Your task to perform on an android device: turn on location history Image 0: 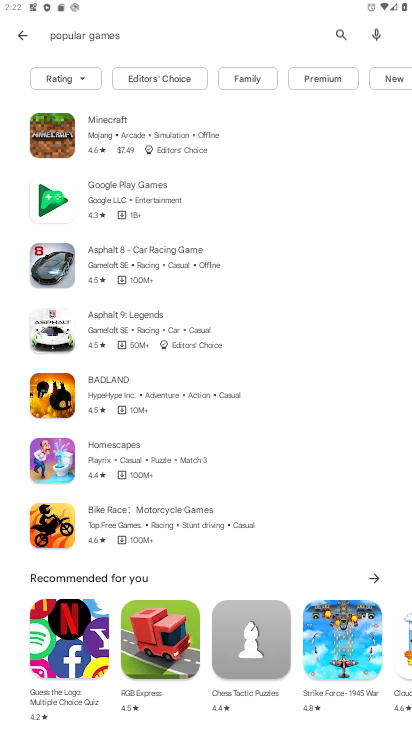
Step 0: press home button
Your task to perform on an android device: turn on location history Image 1: 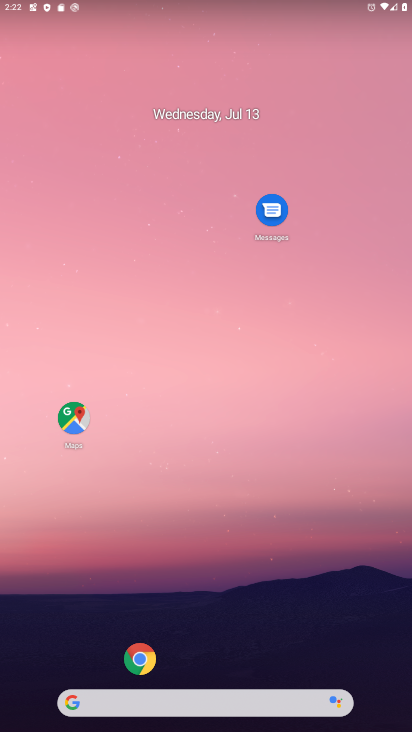
Step 1: drag from (17, 664) to (113, 21)
Your task to perform on an android device: turn on location history Image 2: 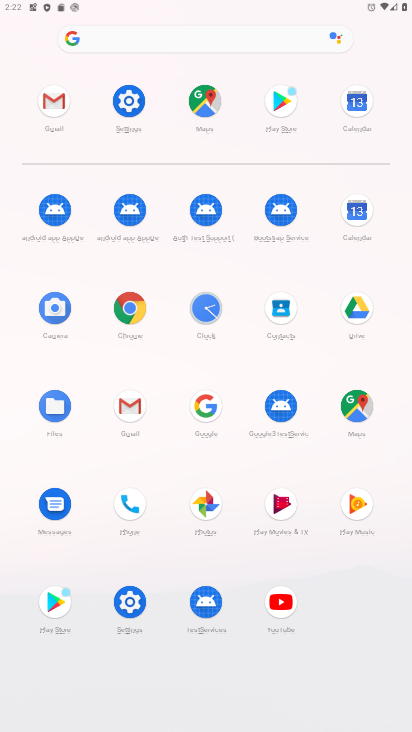
Step 2: click (134, 603)
Your task to perform on an android device: turn on location history Image 3: 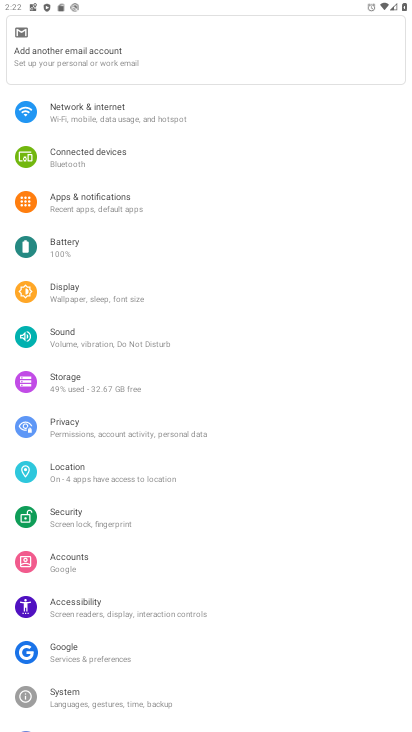
Step 3: click (92, 464)
Your task to perform on an android device: turn on location history Image 4: 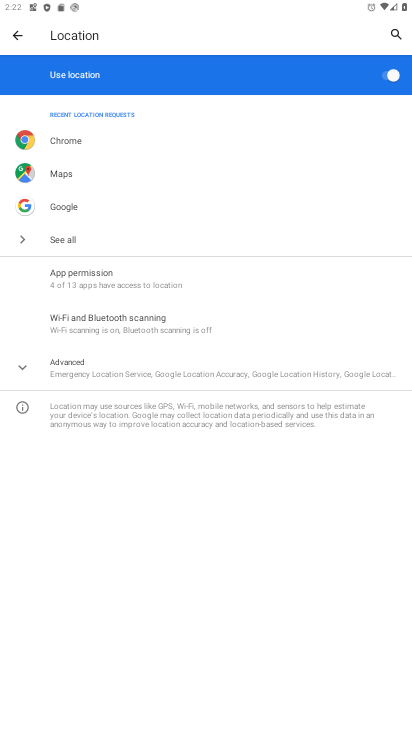
Step 4: click (113, 361)
Your task to perform on an android device: turn on location history Image 5: 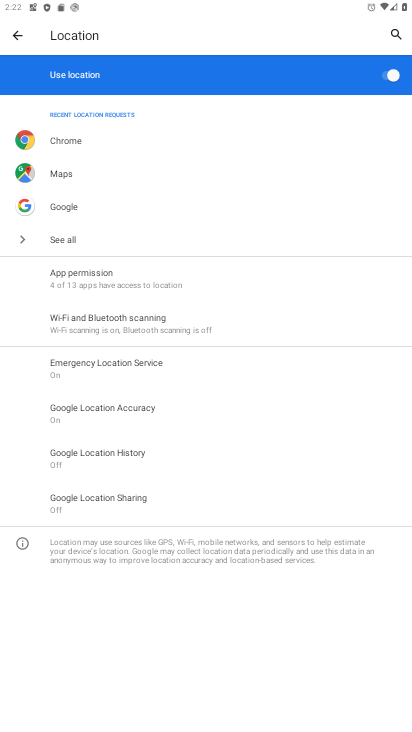
Step 5: click (106, 458)
Your task to perform on an android device: turn on location history Image 6: 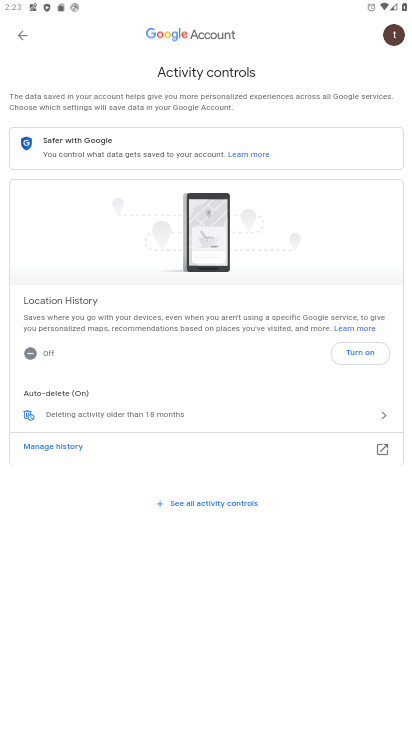
Step 6: click (361, 350)
Your task to perform on an android device: turn on location history Image 7: 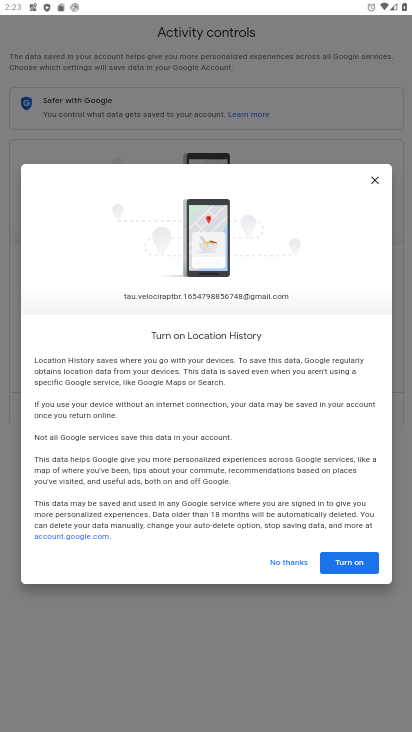
Step 7: click (352, 563)
Your task to perform on an android device: turn on location history Image 8: 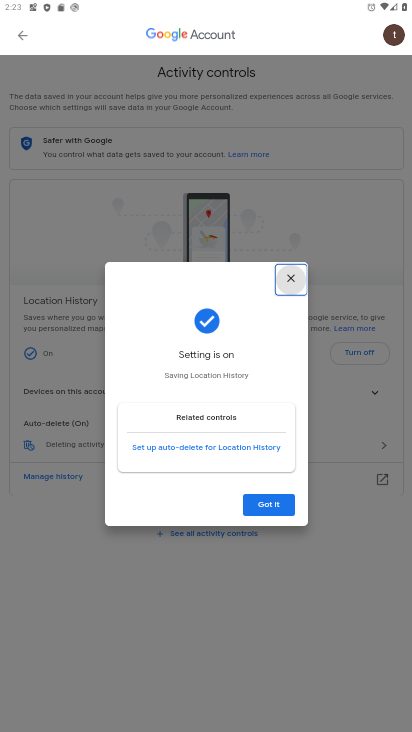
Step 8: click (253, 503)
Your task to perform on an android device: turn on location history Image 9: 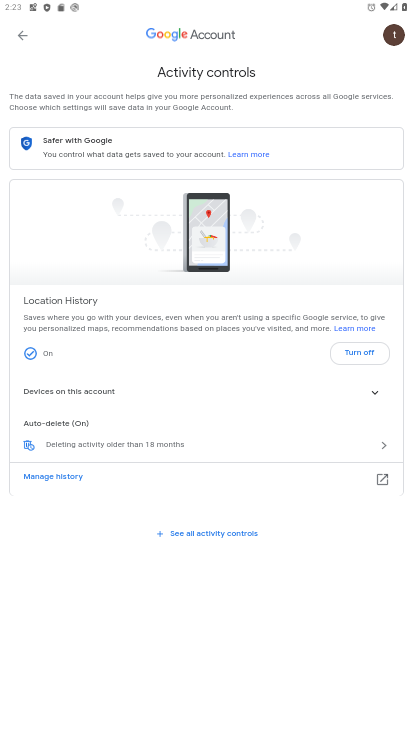
Step 9: task complete